Your task to perform on an android device: Is it going to rain tomorrow? Image 0: 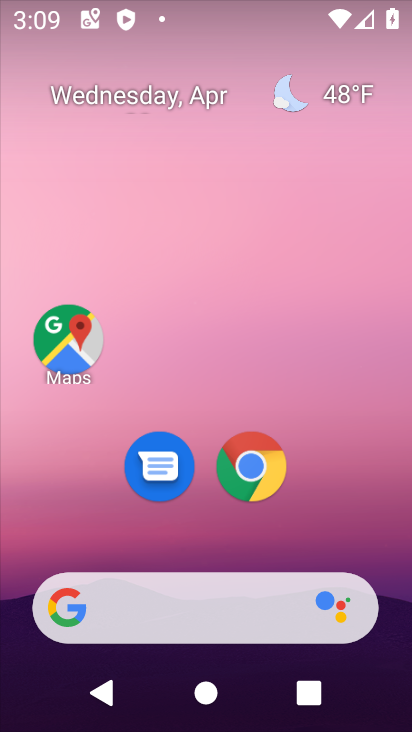
Step 0: click (104, 600)
Your task to perform on an android device: Is it going to rain tomorrow? Image 1: 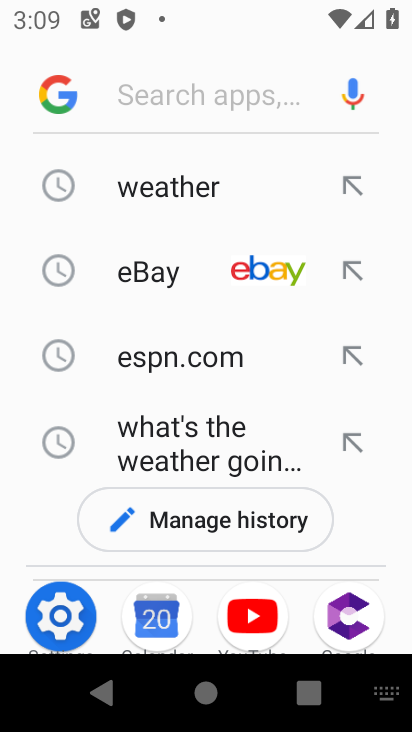
Step 1: click (62, 91)
Your task to perform on an android device: Is it going to rain tomorrow? Image 2: 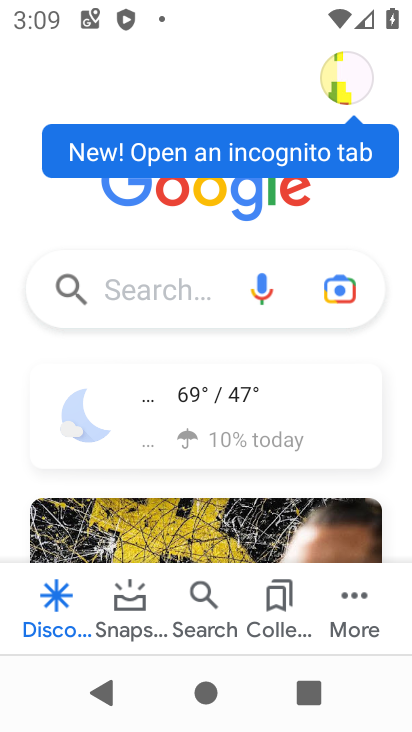
Step 2: click (188, 408)
Your task to perform on an android device: Is it going to rain tomorrow? Image 3: 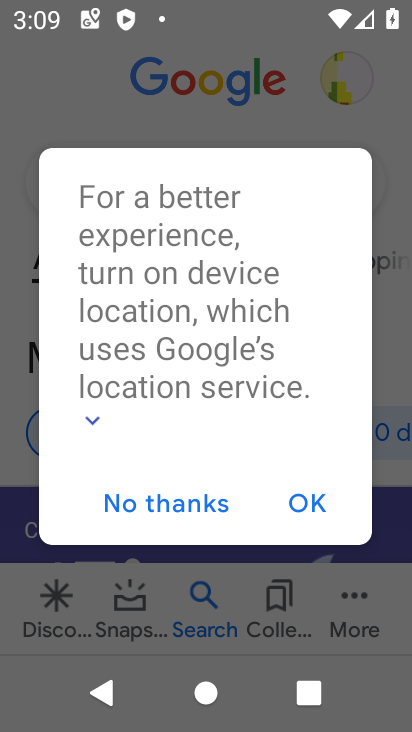
Step 3: click (294, 499)
Your task to perform on an android device: Is it going to rain tomorrow? Image 4: 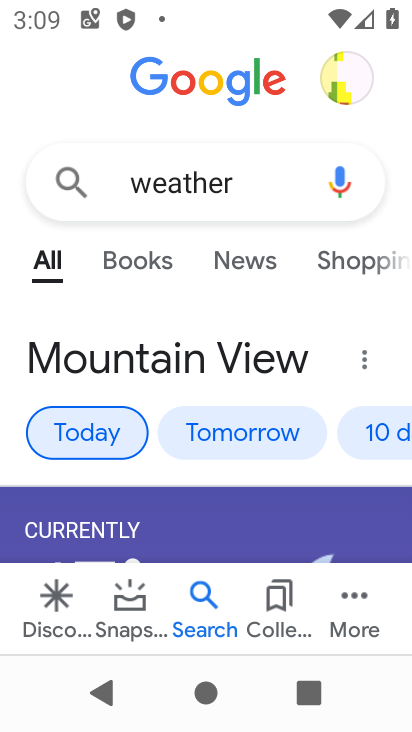
Step 4: click (227, 433)
Your task to perform on an android device: Is it going to rain tomorrow? Image 5: 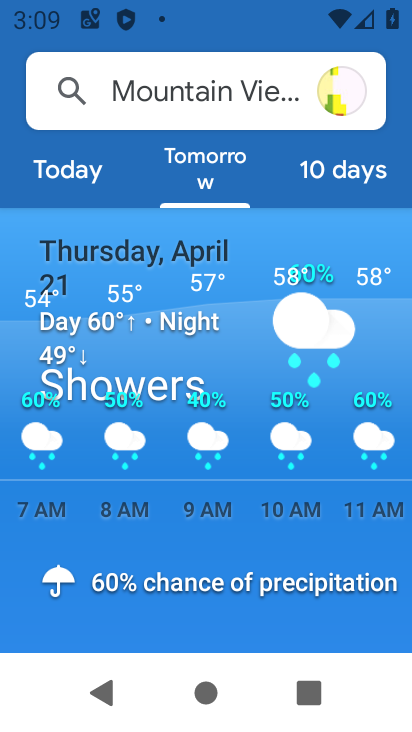
Step 5: task complete